Your task to perform on an android device: move a message to another label in the gmail app Image 0: 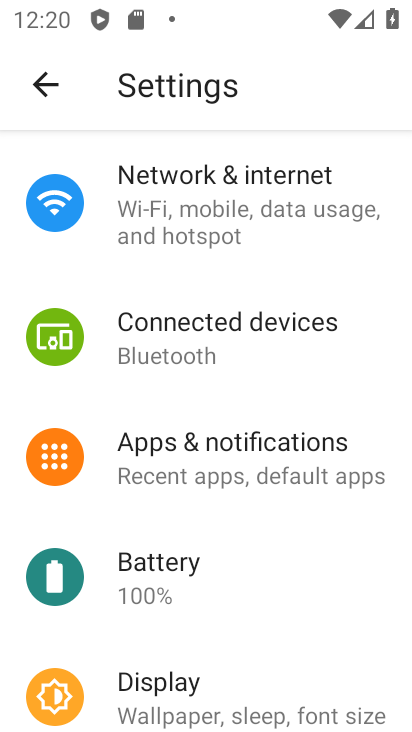
Step 0: press home button
Your task to perform on an android device: move a message to another label in the gmail app Image 1: 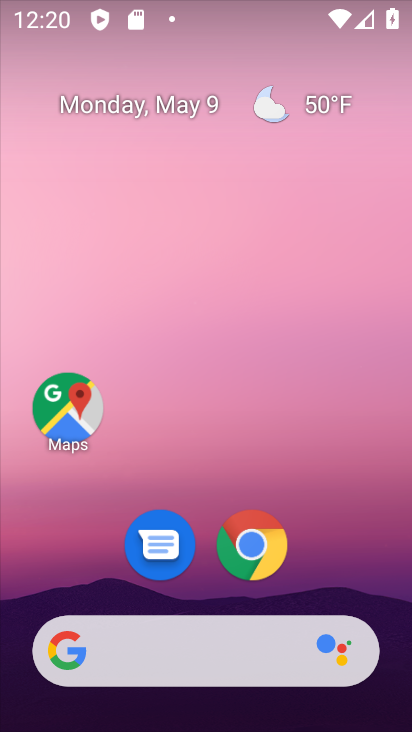
Step 1: drag from (193, 528) to (142, 231)
Your task to perform on an android device: move a message to another label in the gmail app Image 2: 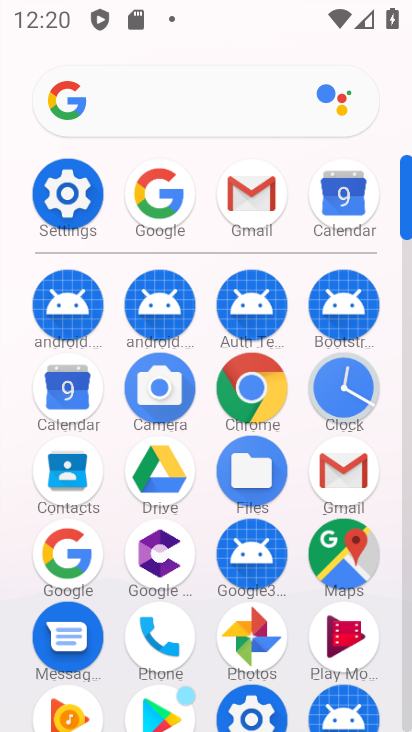
Step 2: click (264, 212)
Your task to perform on an android device: move a message to another label in the gmail app Image 3: 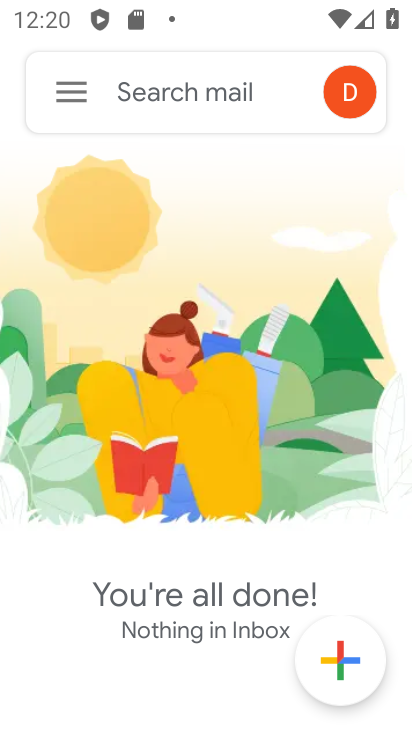
Step 3: click (61, 114)
Your task to perform on an android device: move a message to another label in the gmail app Image 4: 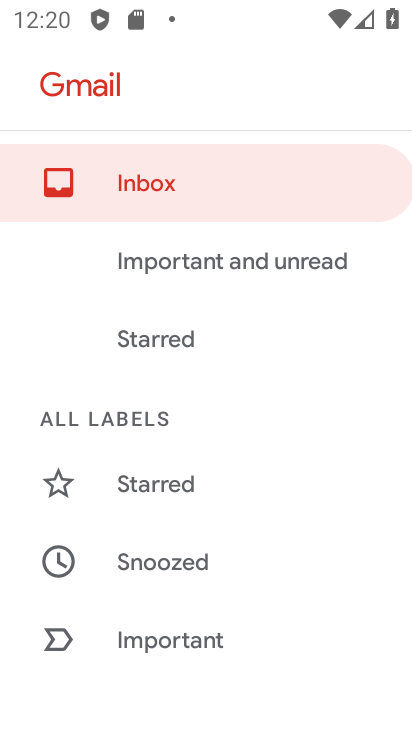
Step 4: click (198, 148)
Your task to perform on an android device: move a message to another label in the gmail app Image 5: 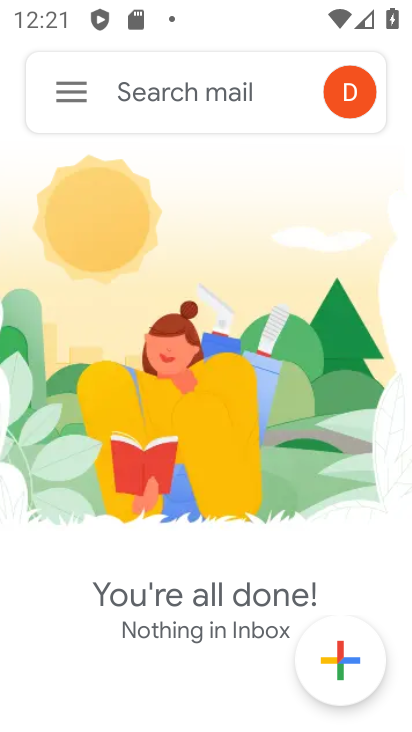
Step 5: click (71, 83)
Your task to perform on an android device: move a message to another label in the gmail app Image 6: 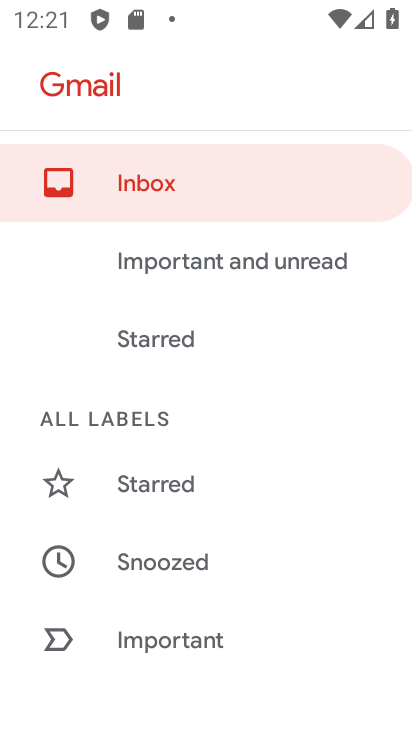
Step 6: task complete